Your task to perform on an android device: turn pop-ups off in chrome Image 0: 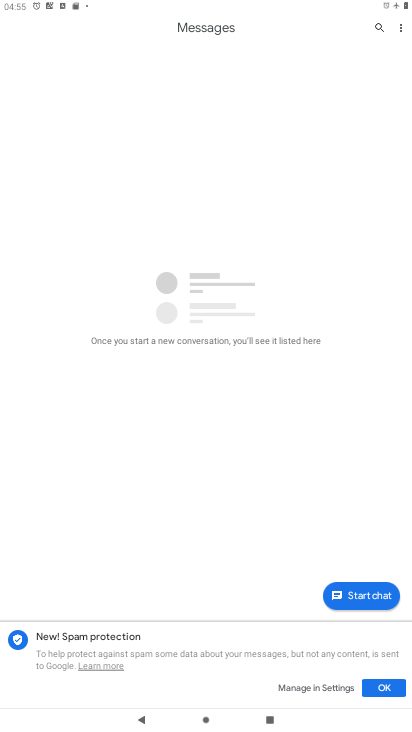
Step 0: press home button
Your task to perform on an android device: turn pop-ups off in chrome Image 1: 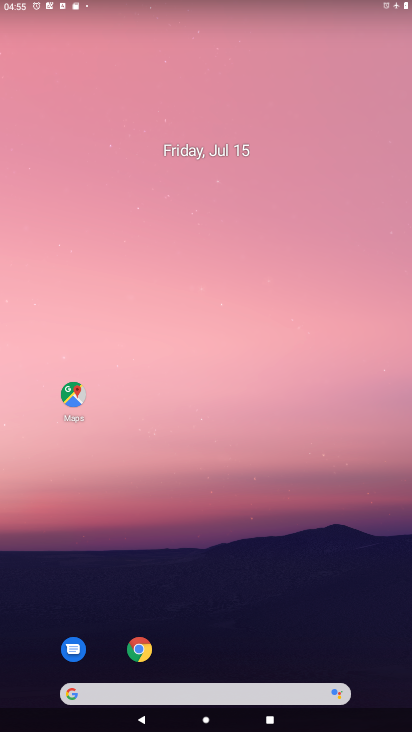
Step 1: click (137, 651)
Your task to perform on an android device: turn pop-ups off in chrome Image 2: 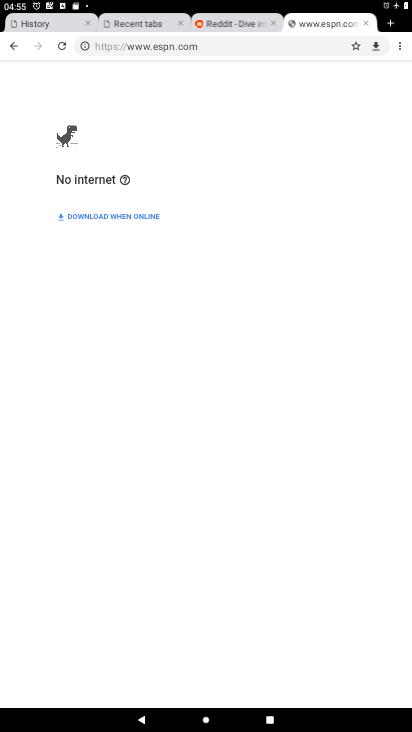
Step 2: click (400, 51)
Your task to perform on an android device: turn pop-ups off in chrome Image 3: 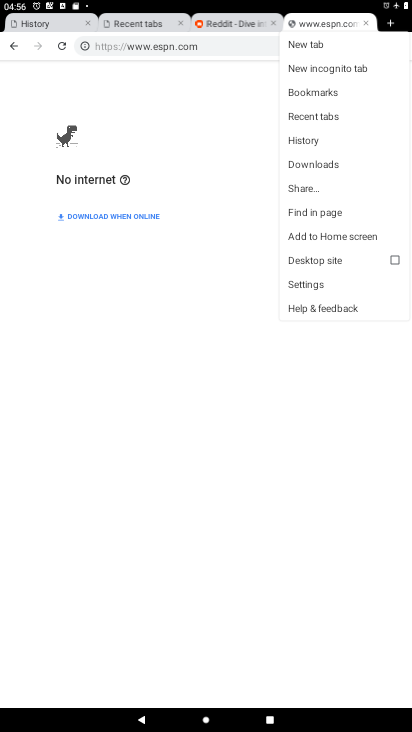
Step 3: click (306, 285)
Your task to perform on an android device: turn pop-ups off in chrome Image 4: 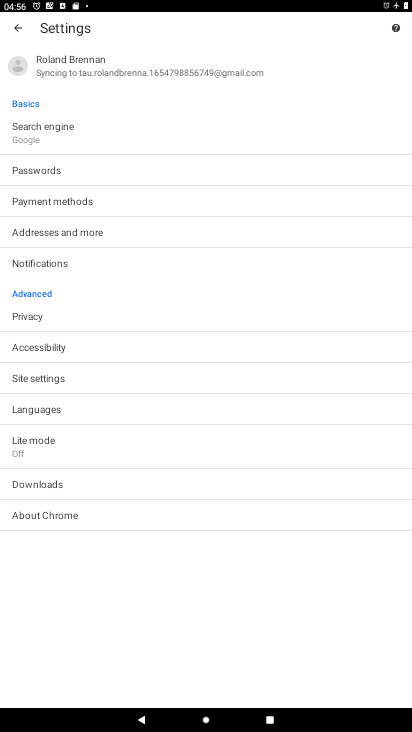
Step 4: click (33, 381)
Your task to perform on an android device: turn pop-ups off in chrome Image 5: 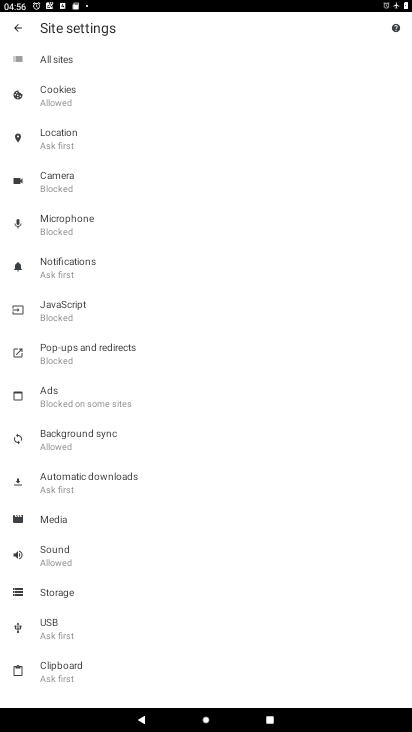
Step 5: click (78, 351)
Your task to perform on an android device: turn pop-ups off in chrome Image 6: 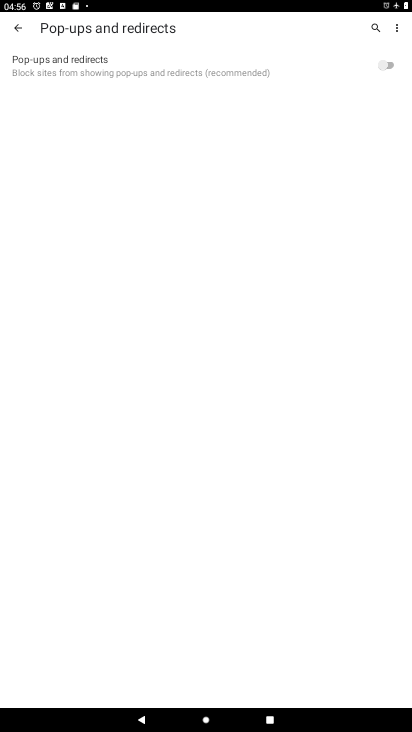
Step 6: task complete